Your task to perform on an android device: Open settings on Google Maps Image 0: 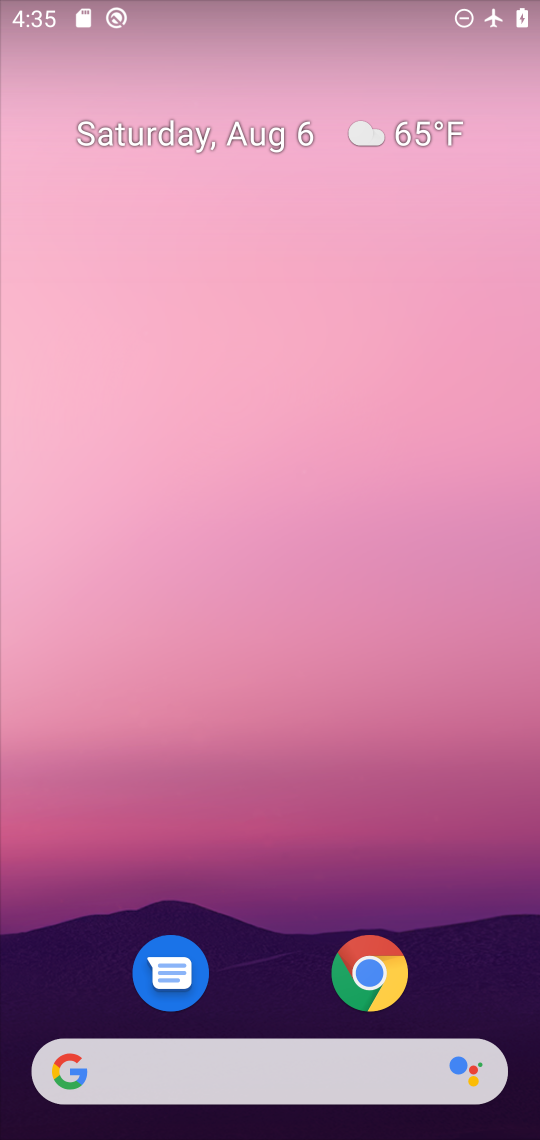
Step 0: drag from (256, 932) to (336, 88)
Your task to perform on an android device: Open settings on Google Maps Image 1: 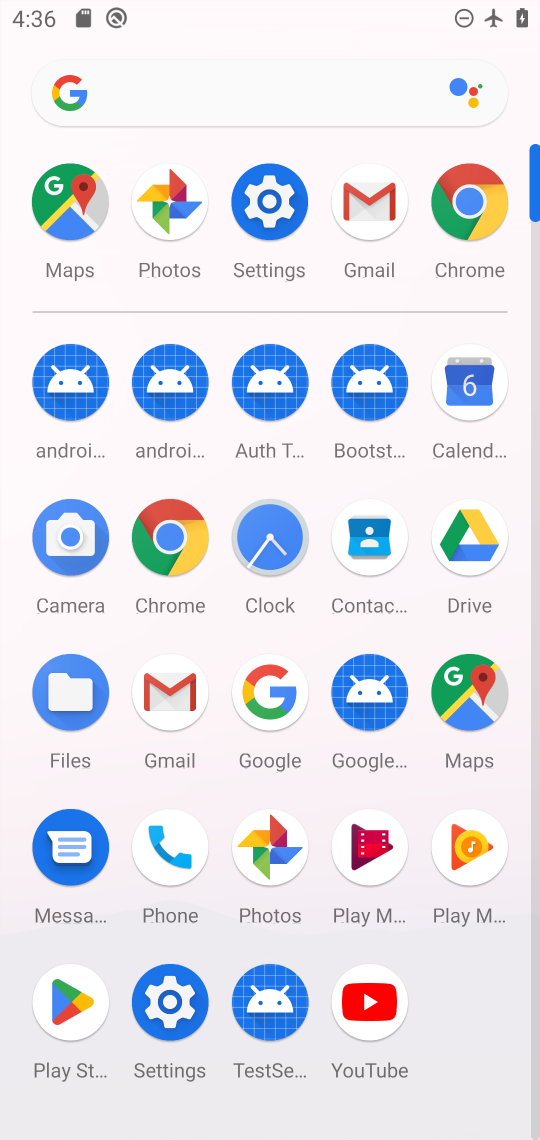
Step 1: click (476, 698)
Your task to perform on an android device: Open settings on Google Maps Image 2: 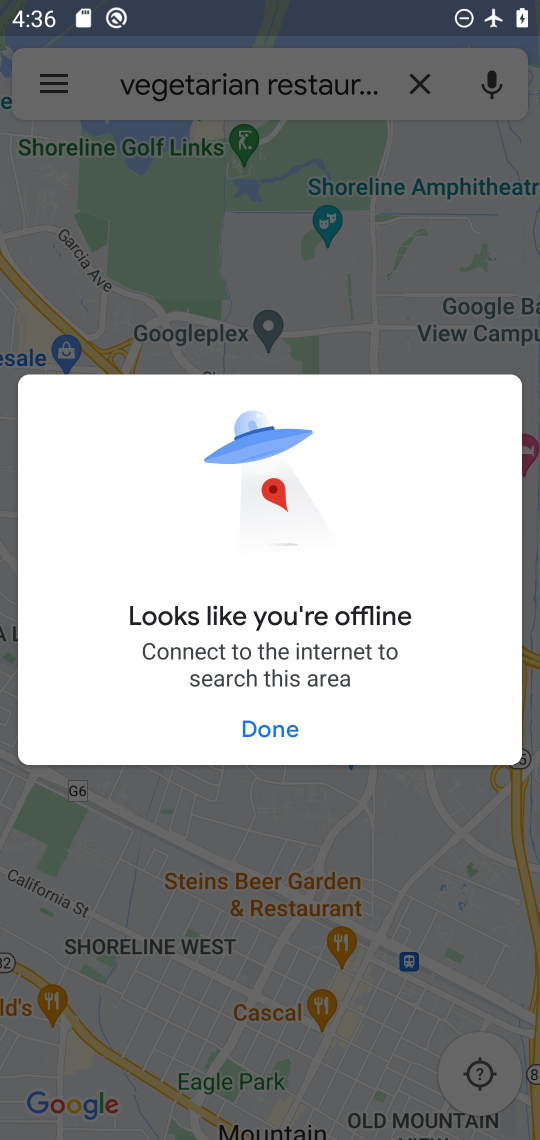
Step 2: click (271, 721)
Your task to perform on an android device: Open settings on Google Maps Image 3: 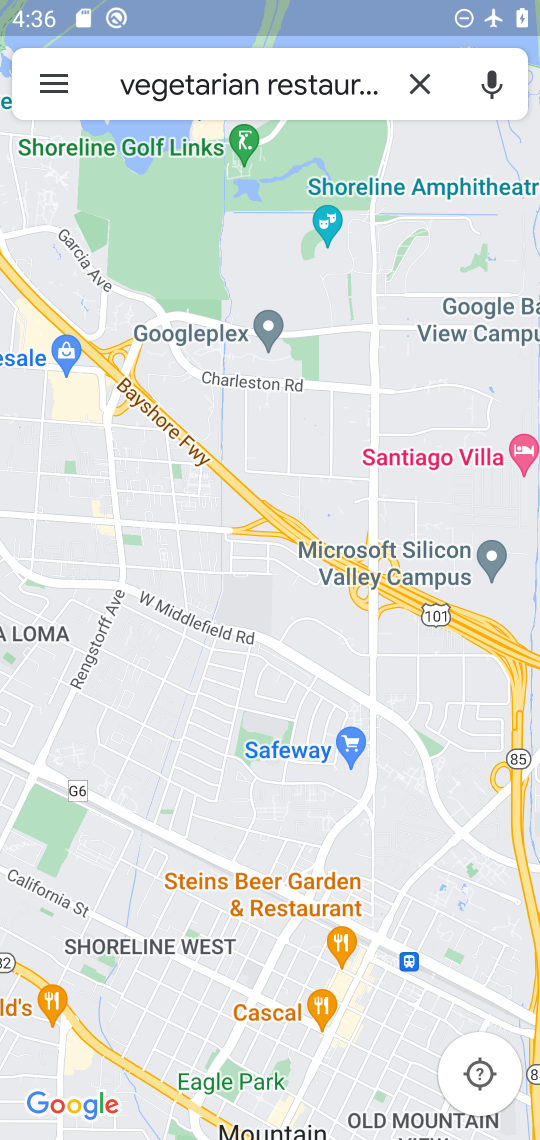
Step 3: click (38, 82)
Your task to perform on an android device: Open settings on Google Maps Image 4: 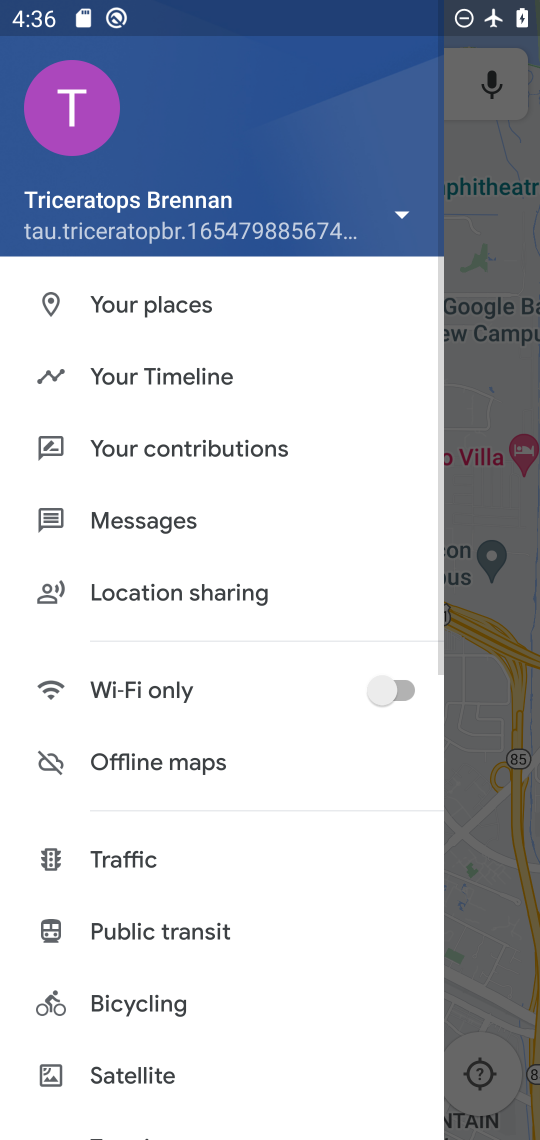
Step 4: drag from (181, 816) to (242, 394)
Your task to perform on an android device: Open settings on Google Maps Image 5: 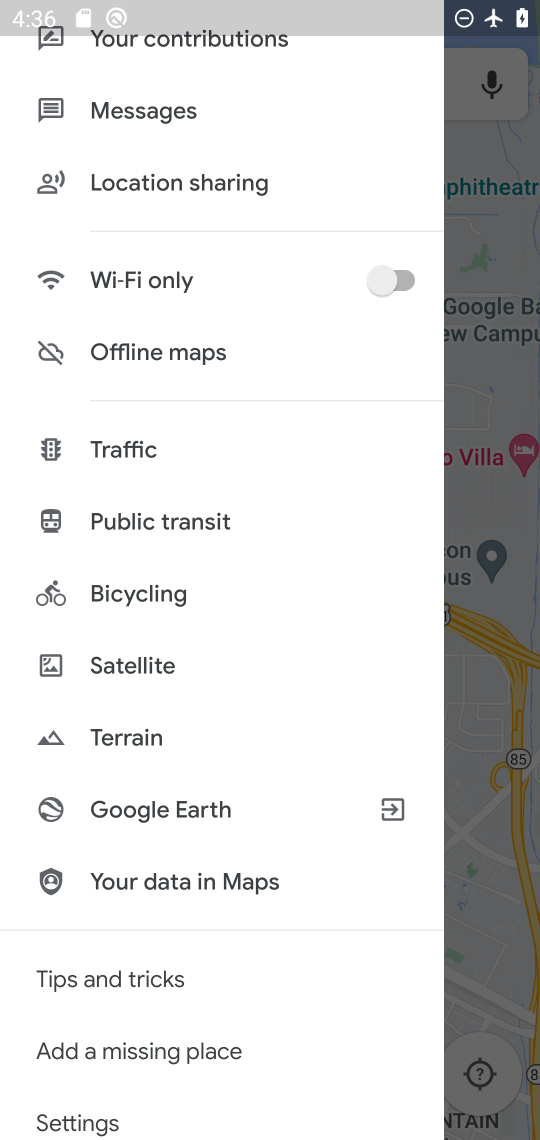
Step 5: click (111, 1116)
Your task to perform on an android device: Open settings on Google Maps Image 6: 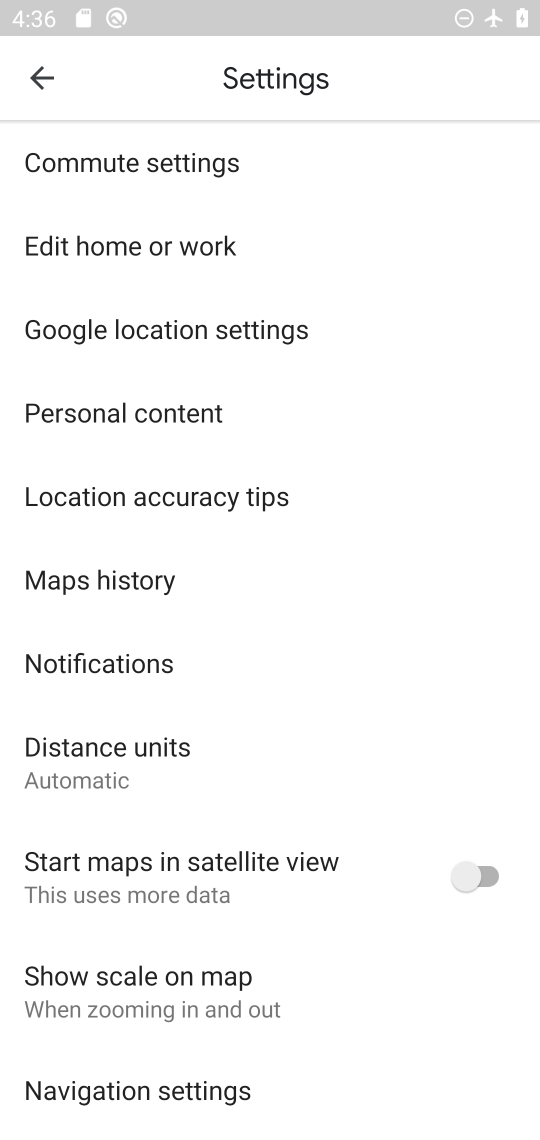
Step 6: task complete